Your task to perform on an android device: turn on priority inbox in the gmail app Image 0: 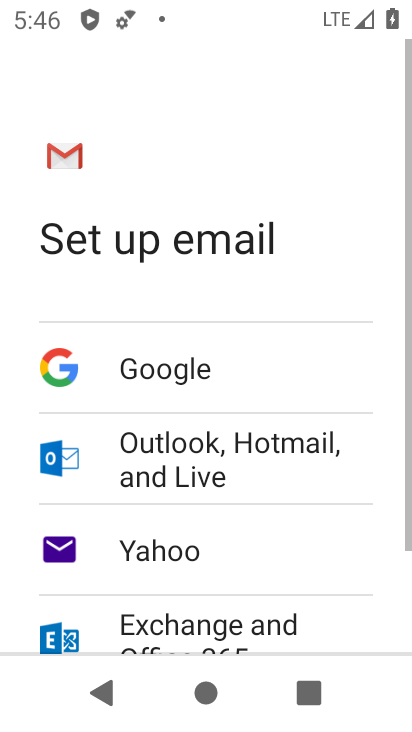
Step 0: press home button
Your task to perform on an android device: turn on priority inbox in the gmail app Image 1: 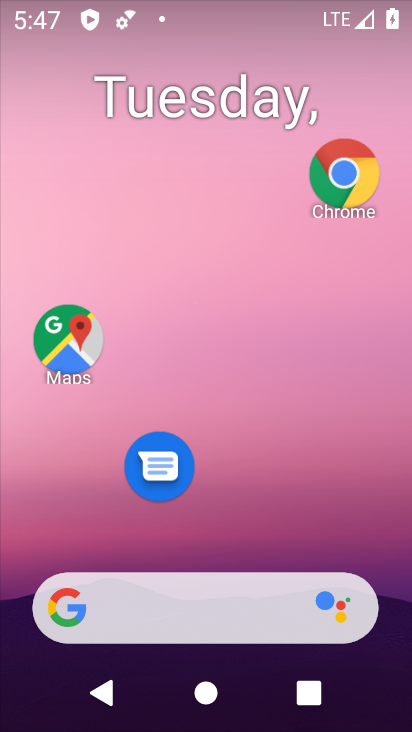
Step 1: drag from (332, 416) to (253, 96)
Your task to perform on an android device: turn on priority inbox in the gmail app Image 2: 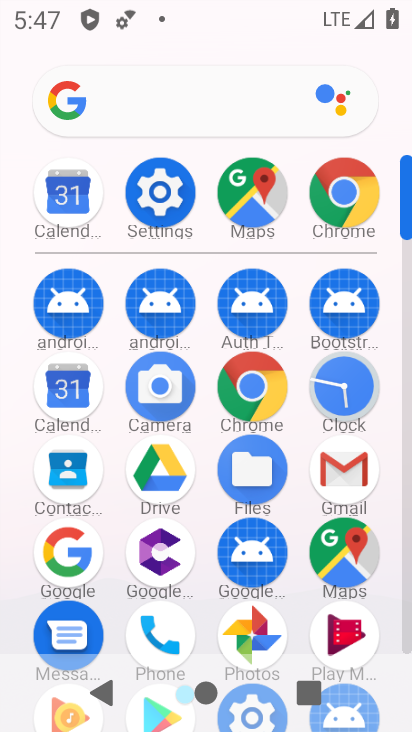
Step 2: click (336, 467)
Your task to perform on an android device: turn on priority inbox in the gmail app Image 3: 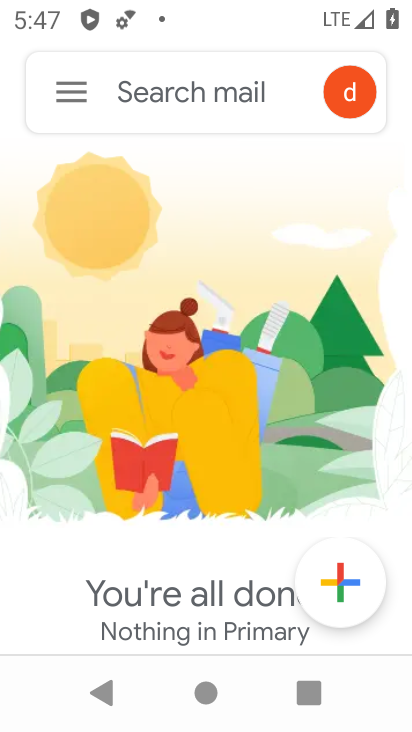
Step 3: click (82, 96)
Your task to perform on an android device: turn on priority inbox in the gmail app Image 4: 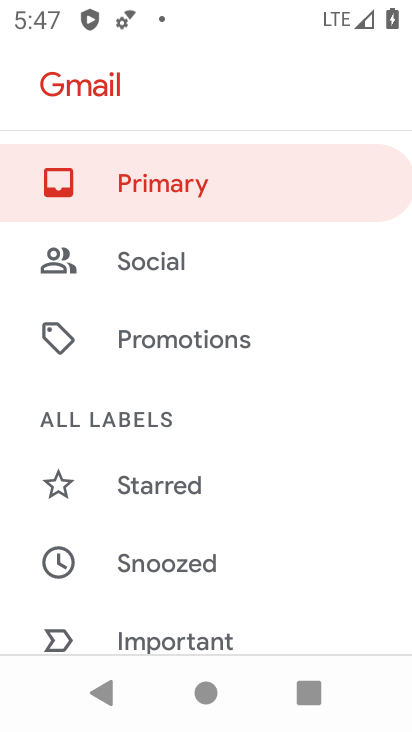
Step 4: drag from (160, 542) to (188, 143)
Your task to perform on an android device: turn on priority inbox in the gmail app Image 5: 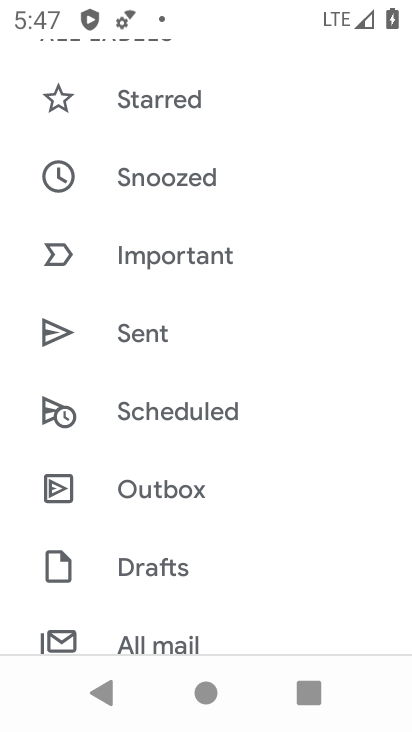
Step 5: drag from (174, 497) to (195, 91)
Your task to perform on an android device: turn on priority inbox in the gmail app Image 6: 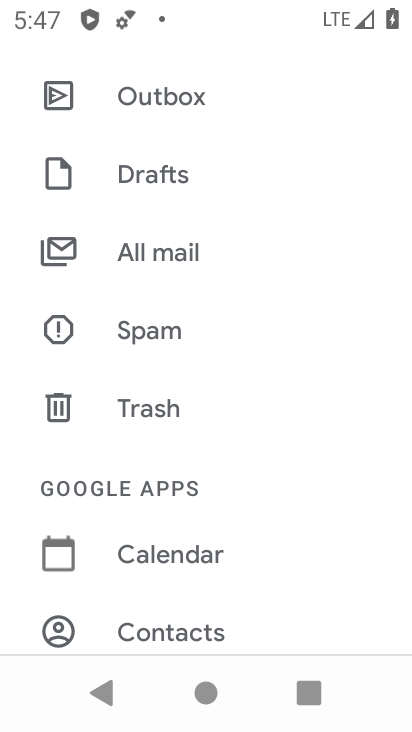
Step 6: drag from (188, 622) to (188, 3)
Your task to perform on an android device: turn on priority inbox in the gmail app Image 7: 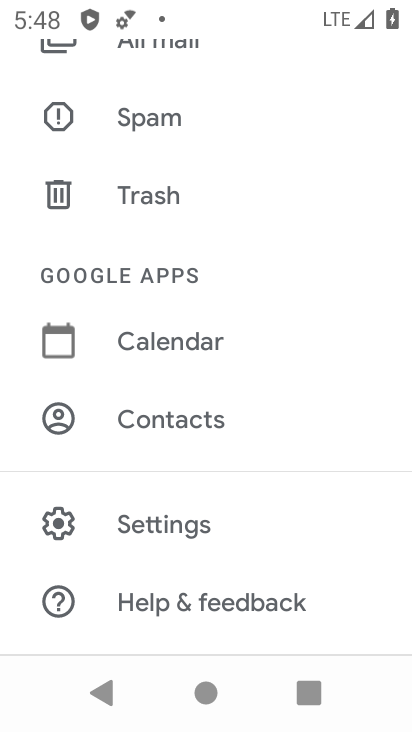
Step 7: click (185, 540)
Your task to perform on an android device: turn on priority inbox in the gmail app Image 8: 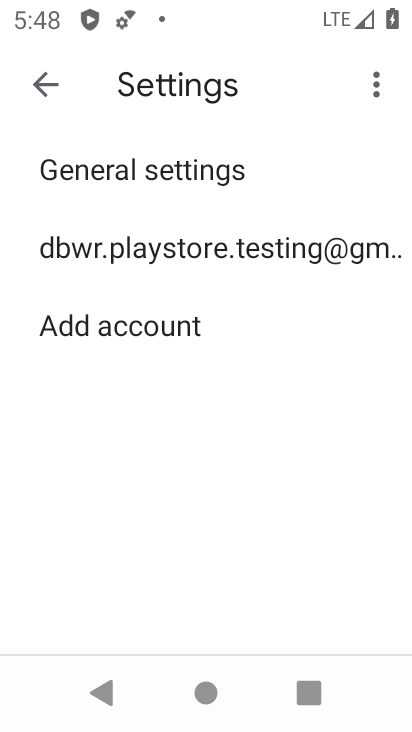
Step 8: click (157, 275)
Your task to perform on an android device: turn on priority inbox in the gmail app Image 9: 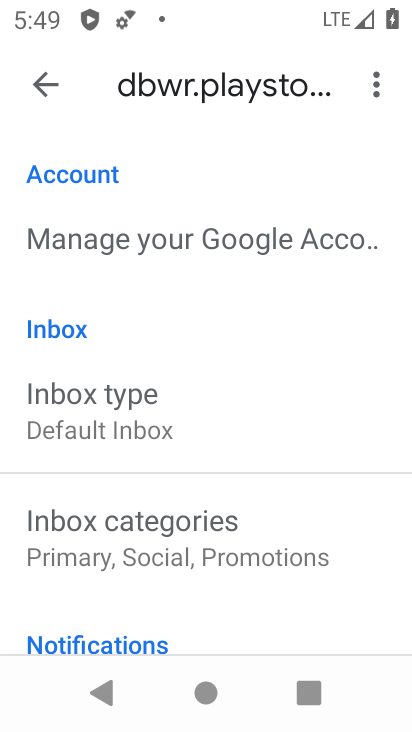
Step 9: click (171, 431)
Your task to perform on an android device: turn on priority inbox in the gmail app Image 10: 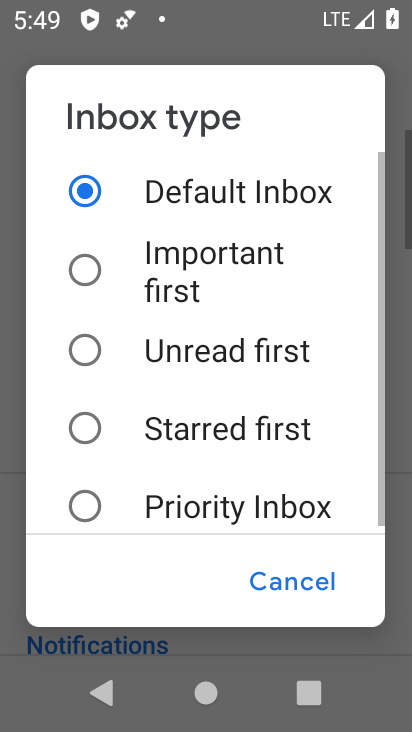
Step 10: click (160, 511)
Your task to perform on an android device: turn on priority inbox in the gmail app Image 11: 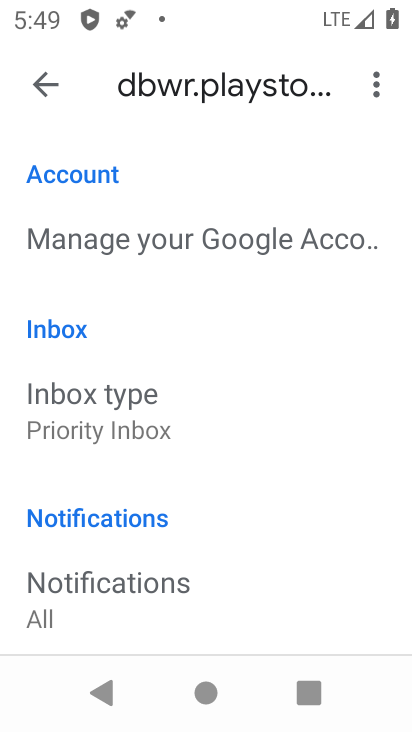
Step 11: task complete